Your task to perform on an android device: turn on javascript in the chrome app Image 0: 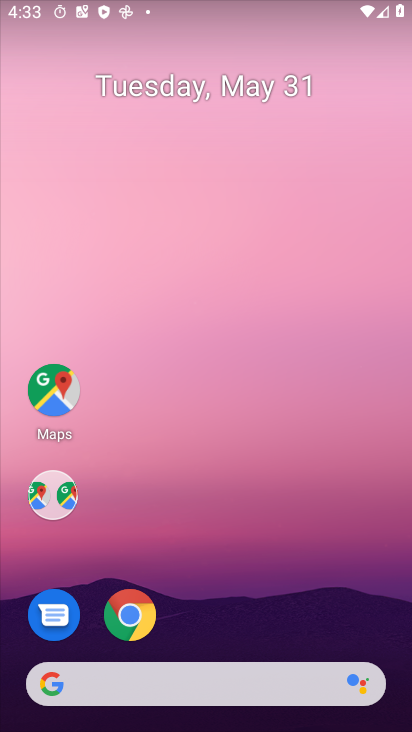
Step 0: drag from (245, 710) to (164, 113)
Your task to perform on an android device: turn on javascript in the chrome app Image 1: 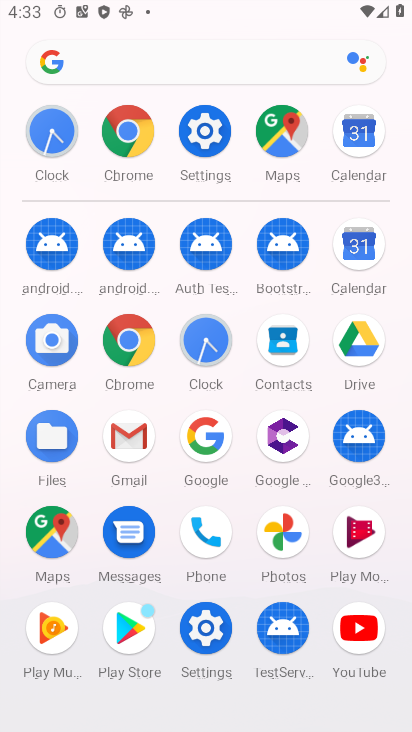
Step 1: click (131, 125)
Your task to perform on an android device: turn on javascript in the chrome app Image 2: 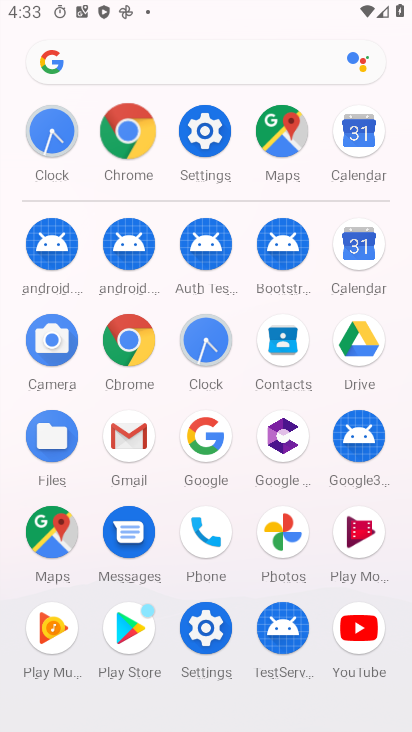
Step 2: click (131, 127)
Your task to perform on an android device: turn on javascript in the chrome app Image 3: 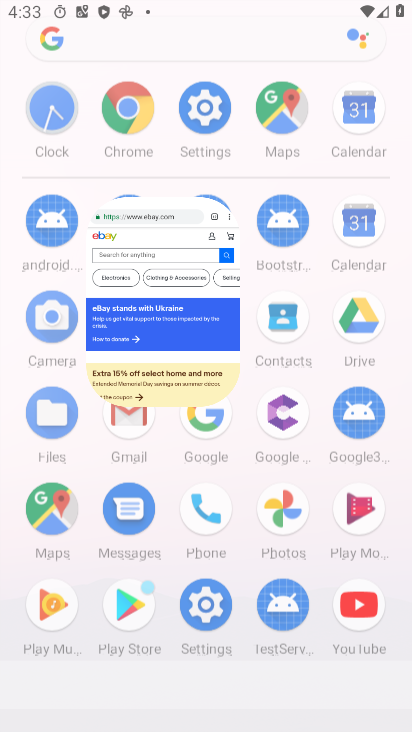
Step 3: click (121, 128)
Your task to perform on an android device: turn on javascript in the chrome app Image 4: 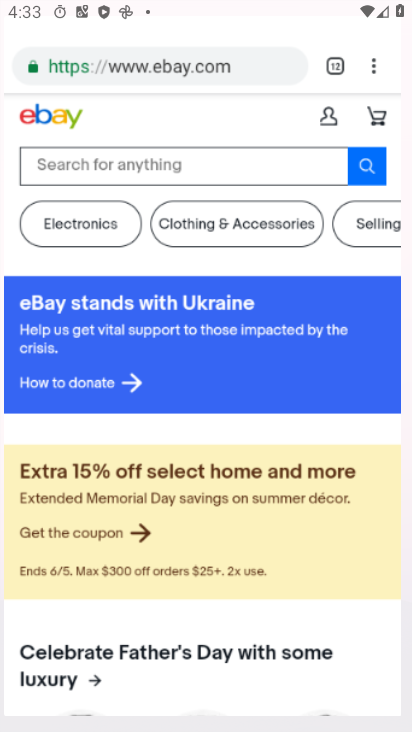
Step 4: click (107, 131)
Your task to perform on an android device: turn on javascript in the chrome app Image 5: 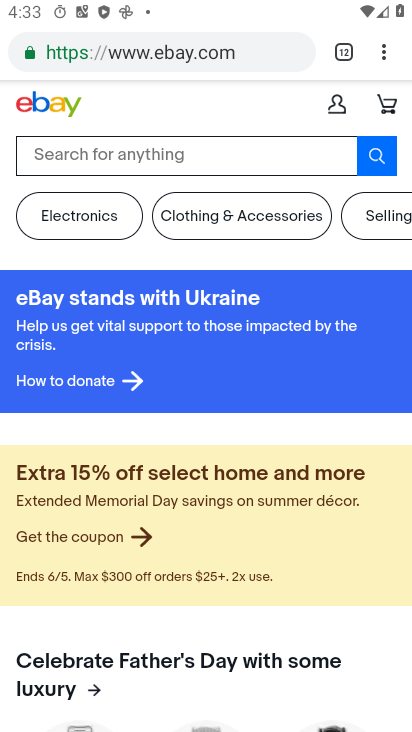
Step 5: drag from (379, 51) to (193, 622)
Your task to perform on an android device: turn on javascript in the chrome app Image 6: 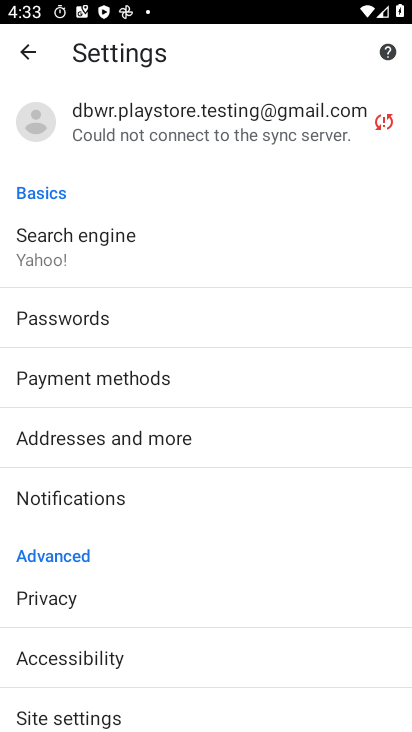
Step 6: drag from (129, 602) to (49, 119)
Your task to perform on an android device: turn on javascript in the chrome app Image 7: 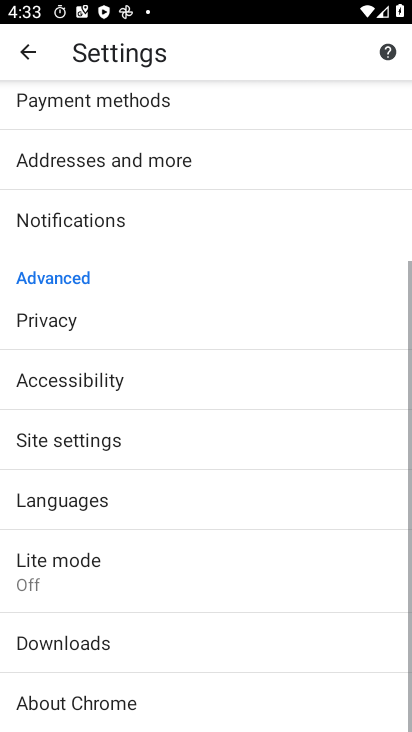
Step 7: drag from (91, 525) to (93, 171)
Your task to perform on an android device: turn on javascript in the chrome app Image 8: 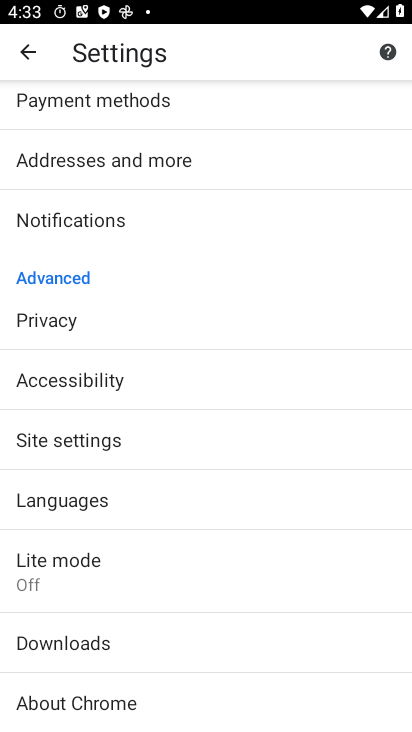
Step 8: click (63, 442)
Your task to perform on an android device: turn on javascript in the chrome app Image 9: 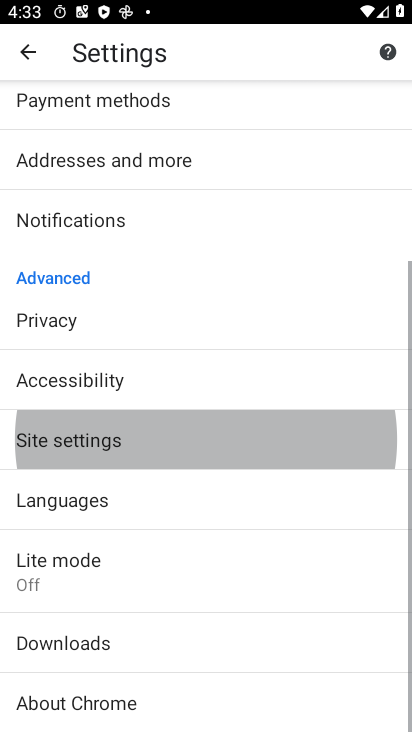
Step 9: click (63, 442)
Your task to perform on an android device: turn on javascript in the chrome app Image 10: 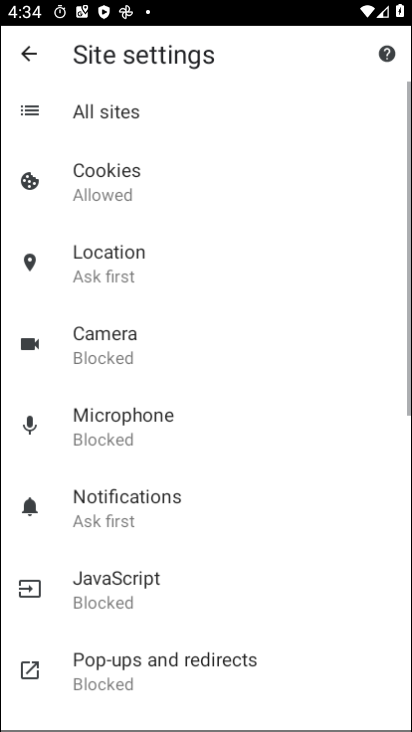
Step 10: click (64, 440)
Your task to perform on an android device: turn on javascript in the chrome app Image 11: 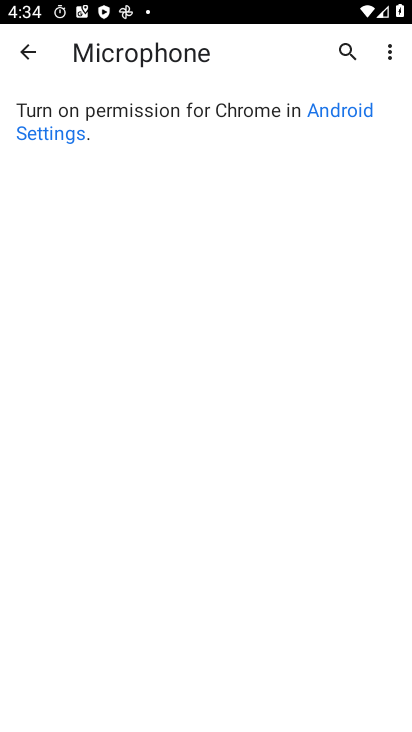
Step 11: click (25, 48)
Your task to perform on an android device: turn on javascript in the chrome app Image 12: 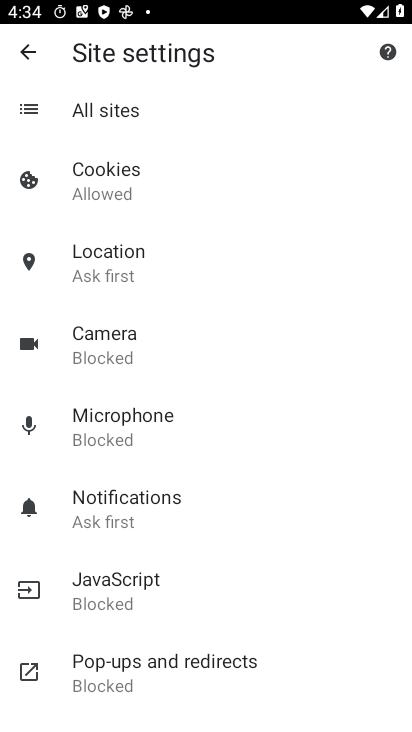
Step 12: click (95, 582)
Your task to perform on an android device: turn on javascript in the chrome app Image 13: 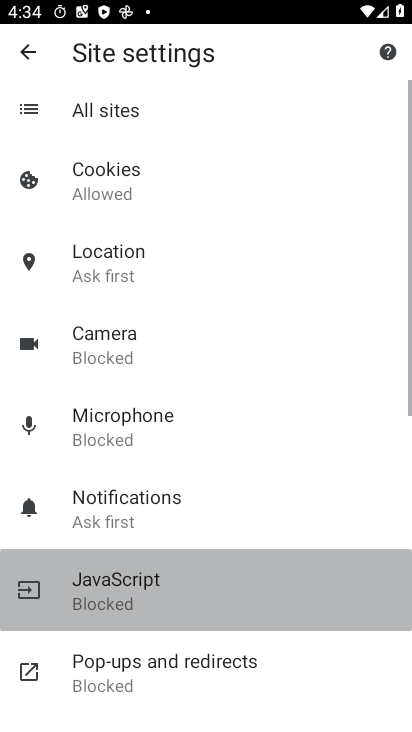
Step 13: click (95, 582)
Your task to perform on an android device: turn on javascript in the chrome app Image 14: 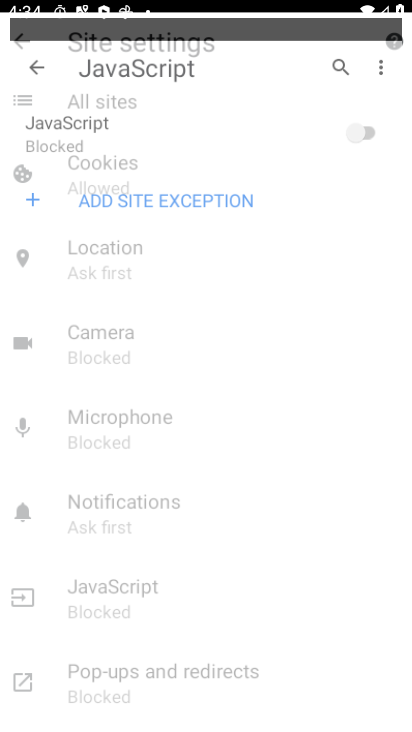
Step 14: click (95, 582)
Your task to perform on an android device: turn on javascript in the chrome app Image 15: 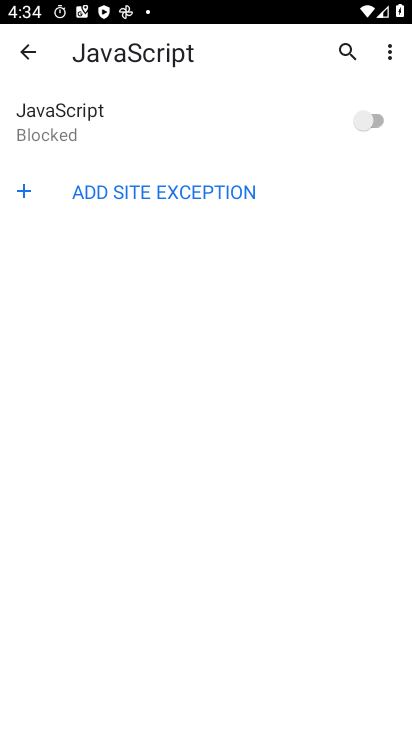
Step 15: click (378, 121)
Your task to perform on an android device: turn on javascript in the chrome app Image 16: 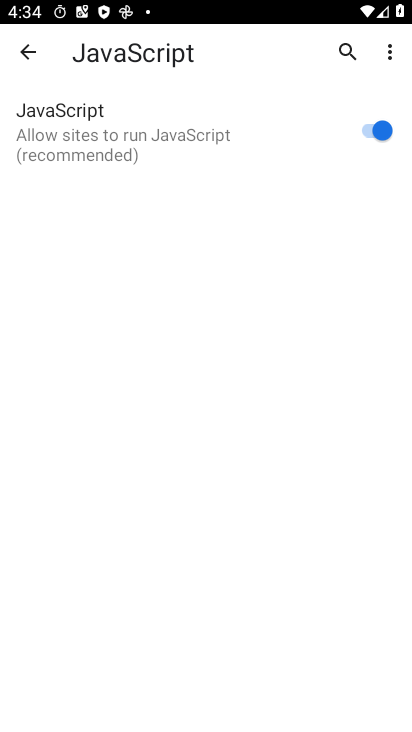
Step 16: task complete